Your task to perform on an android device: turn on data saver in the chrome app Image 0: 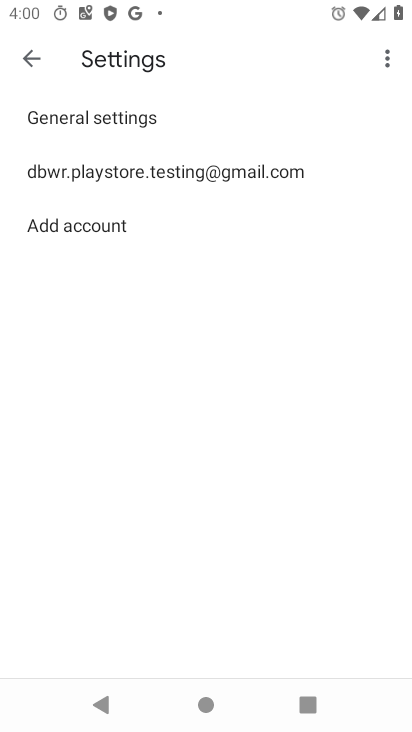
Step 0: press home button
Your task to perform on an android device: turn on data saver in the chrome app Image 1: 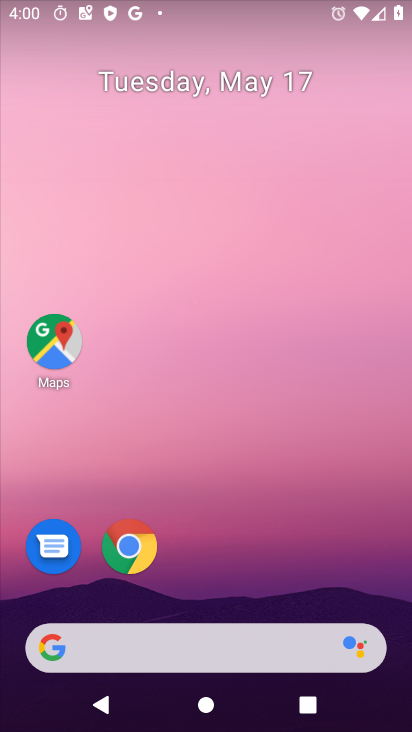
Step 1: click (129, 542)
Your task to perform on an android device: turn on data saver in the chrome app Image 2: 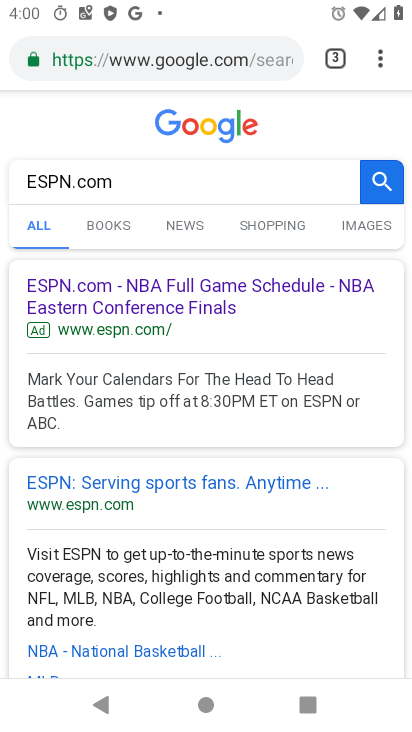
Step 2: click (375, 54)
Your task to perform on an android device: turn on data saver in the chrome app Image 3: 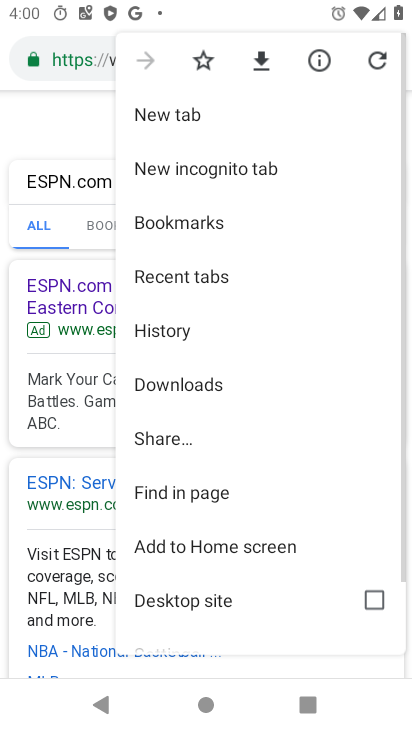
Step 3: drag from (300, 594) to (308, 284)
Your task to perform on an android device: turn on data saver in the chrome app Image 4: 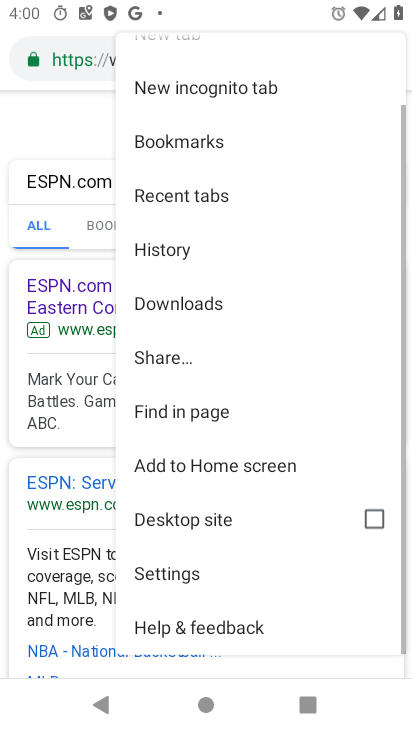
Step 4: click (166, 578)
Your task to perform on an android device: turn on data saver in the chrome app Image 5: 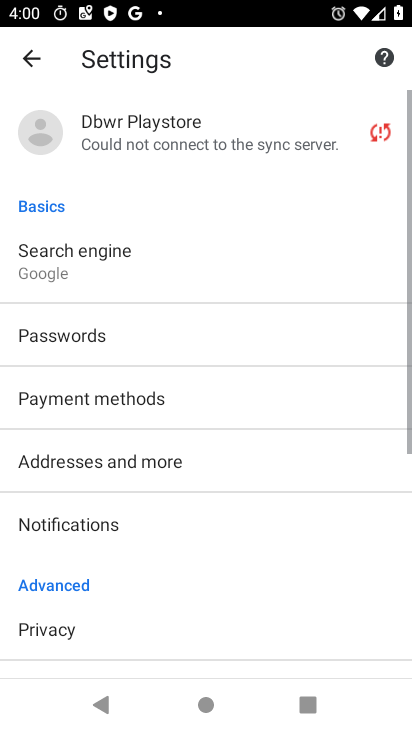
Step 5: drag from (213, 609) to (234, 318)
Your task to perform on an android device: turn on data saver in the chrome app Image 6: 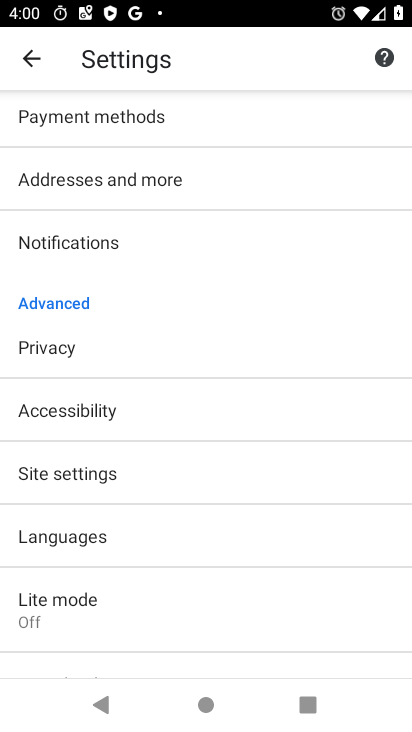
Step 6: click (49, 609)
Your task to perform on an android device: turn on data saver in the chrome app Image 7: 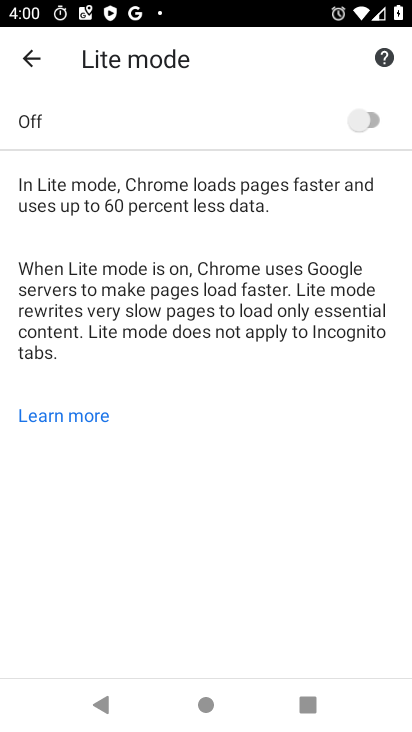
Step 7: click (377, 116)
Your task to perform on an android device: turn on data saver in the chrome app Image 8: 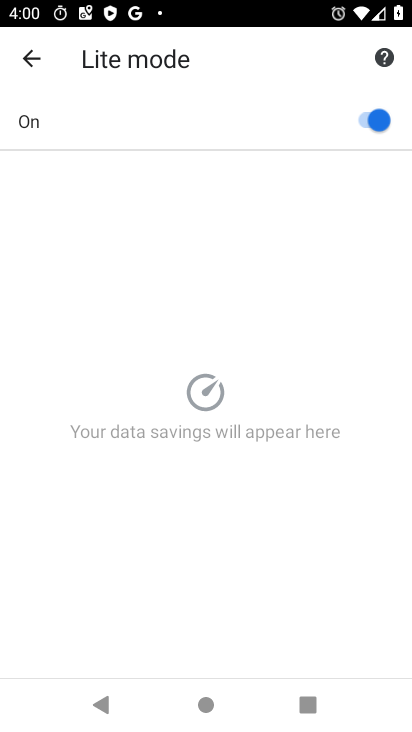
Step 8: task complete